Your task to perform on an android device: open app "AliExpress" Image 0: 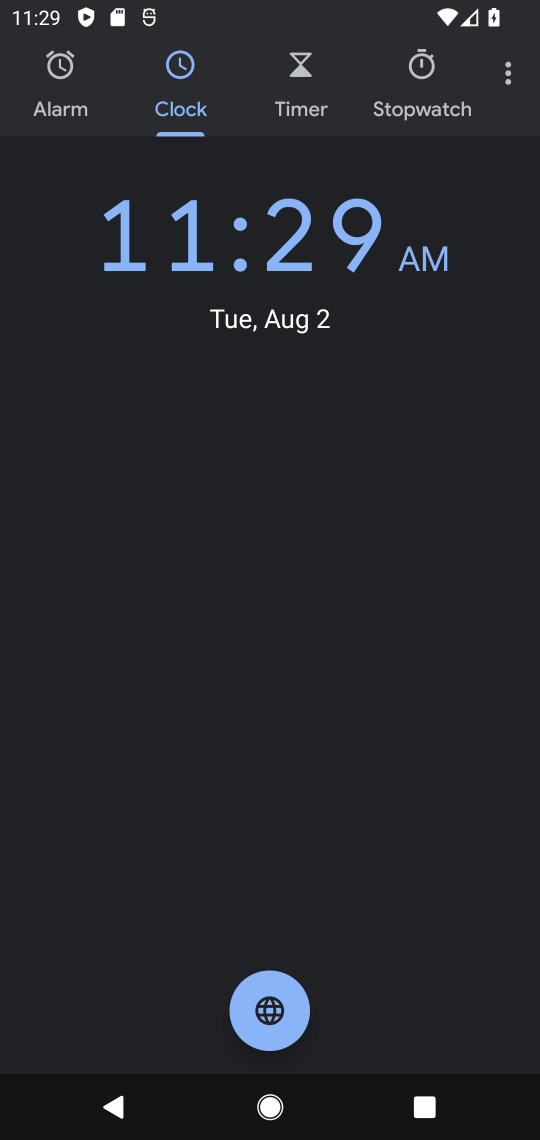
Step 0: press home button
Your task to perform on an android device: open app "AliExpress" Image 1: 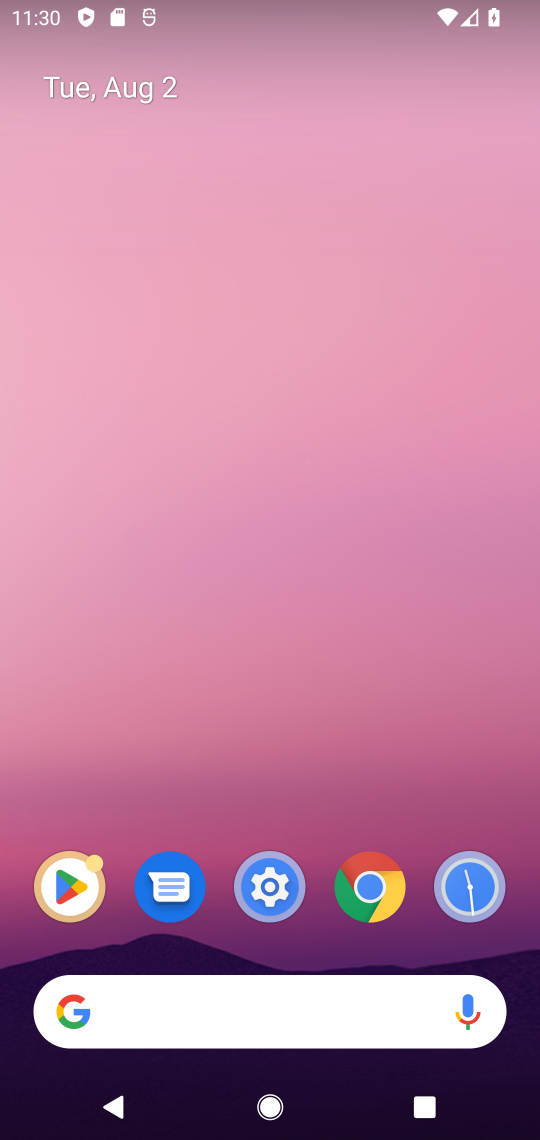
Step 1: click (78, 908)
Your task to perform on an android device: open app "AliExpress" Image 2: 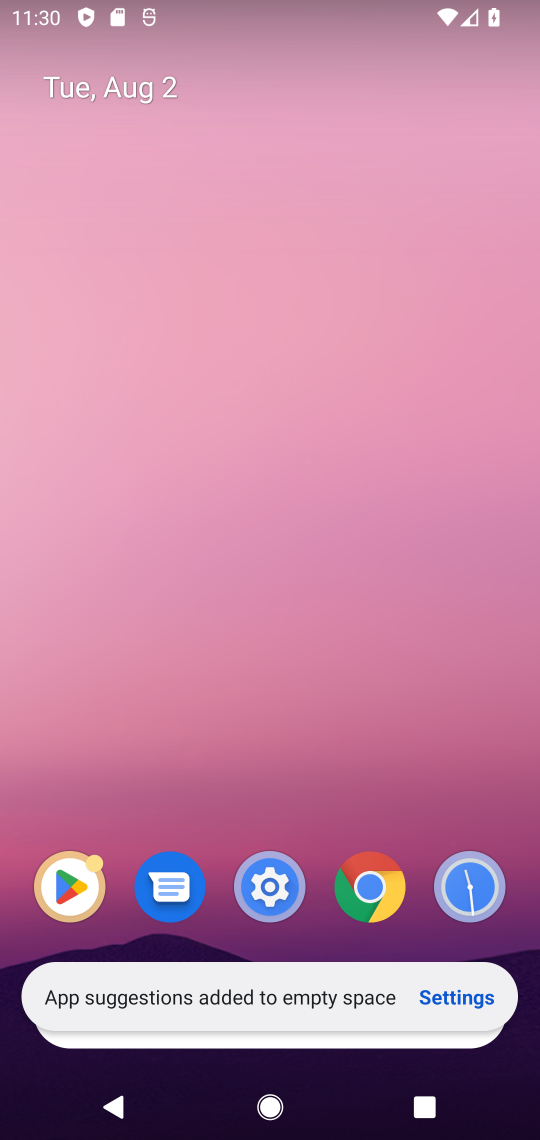
Step 2: click (78, 908)
Your task to perform on an android device: open app "AliExpress" Image 3: 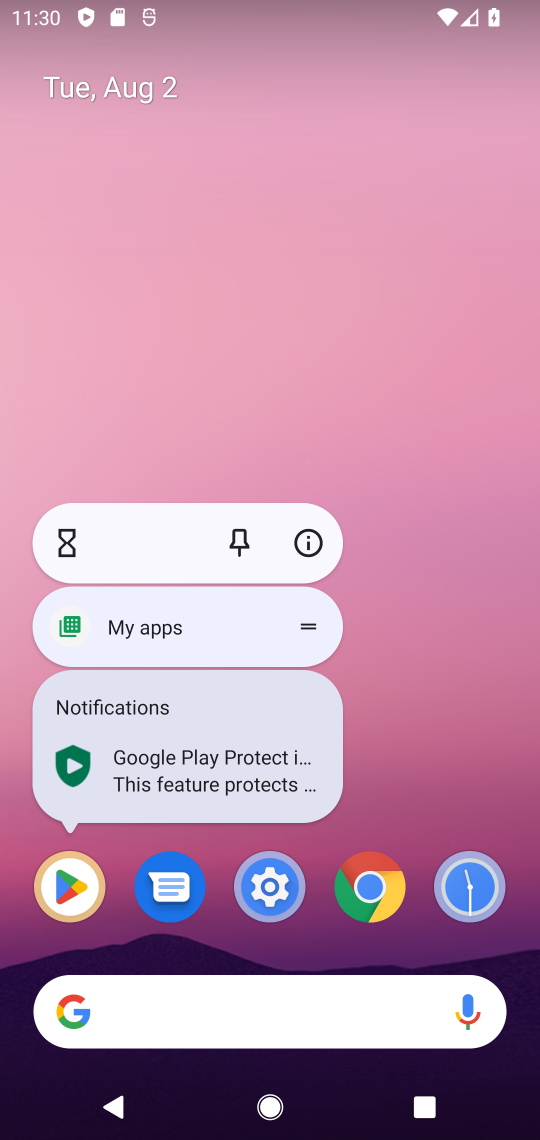
Step 3: click (55, 887)
Your task to perform on an android device: open app "AliExpress" Image 4: 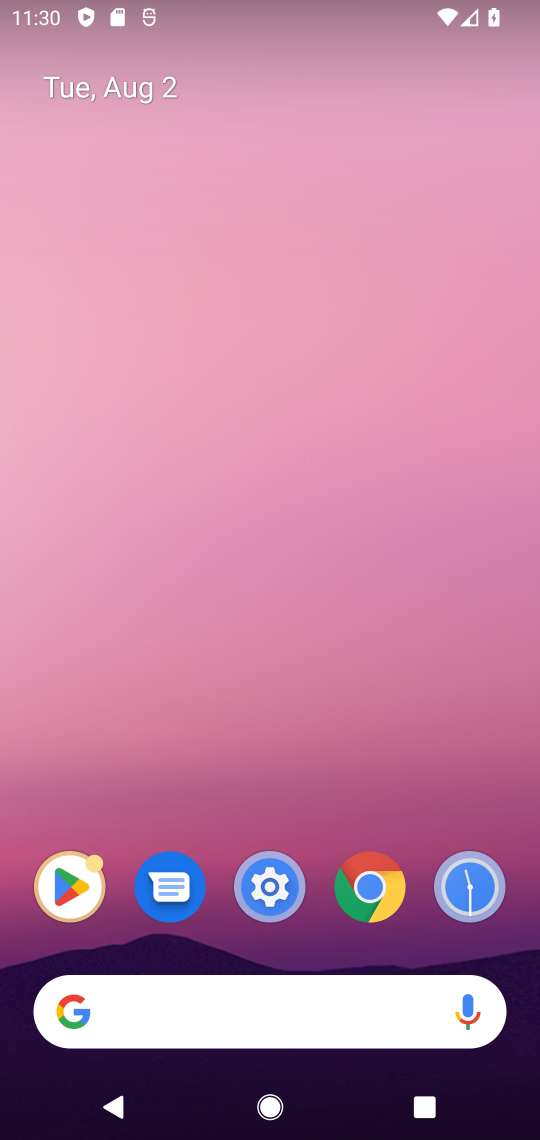
Step 4: click (55, 865)
Your task to perform on an android device: open app "AliExpress" Image 5: 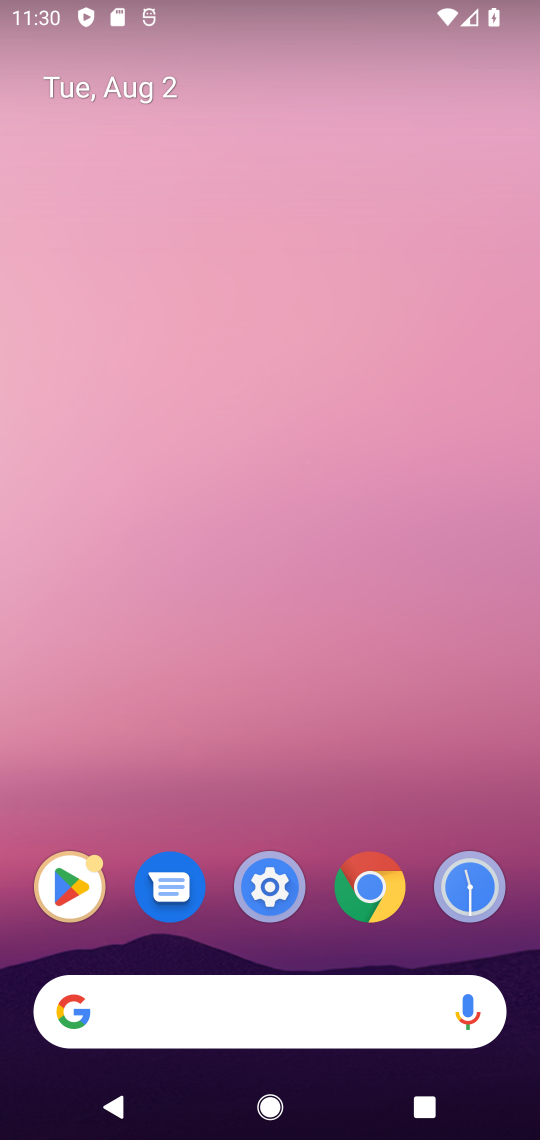
Step 5: click (55, 912)
Your task to perform on an android device: open app "AliExpress" Image 6: 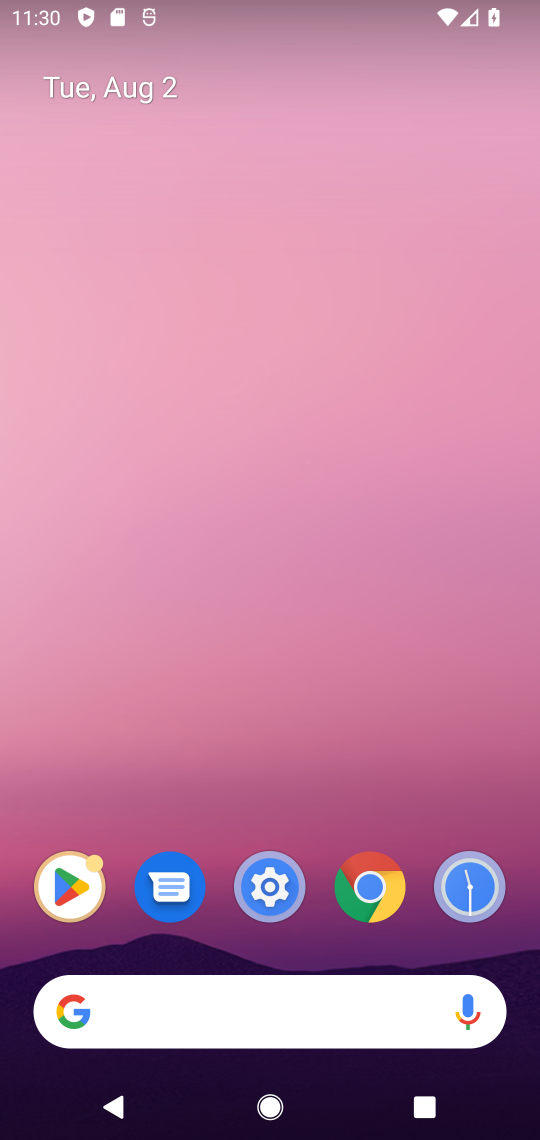
Step 6: click (50, 912)
Your task to perform on an android device: open app "AliExpress" Image 7: 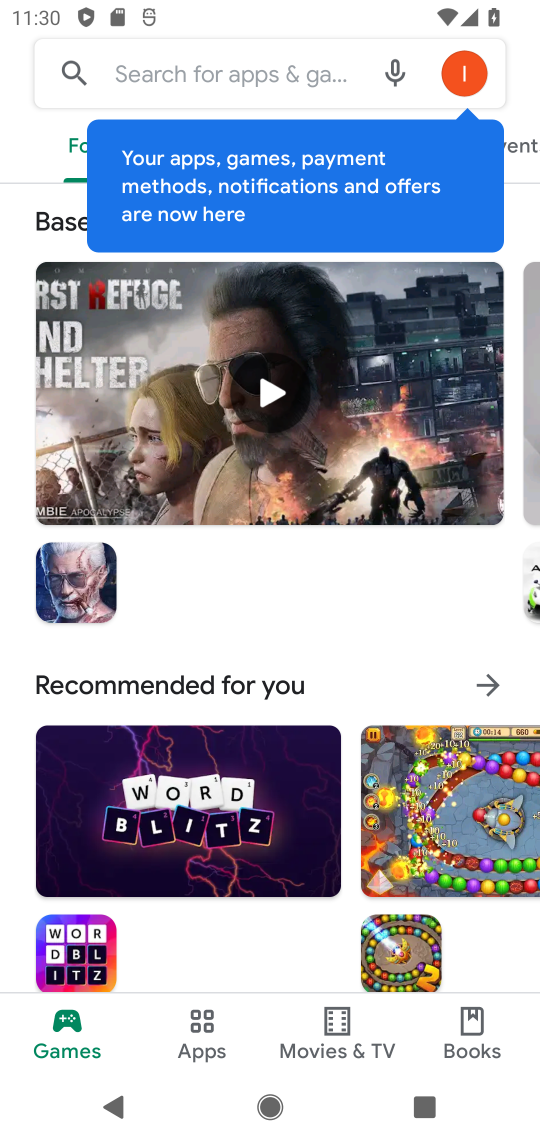
Step 7: click (236, 82)
Your task to perform on an android device: open app "AliExpress" Image 8: 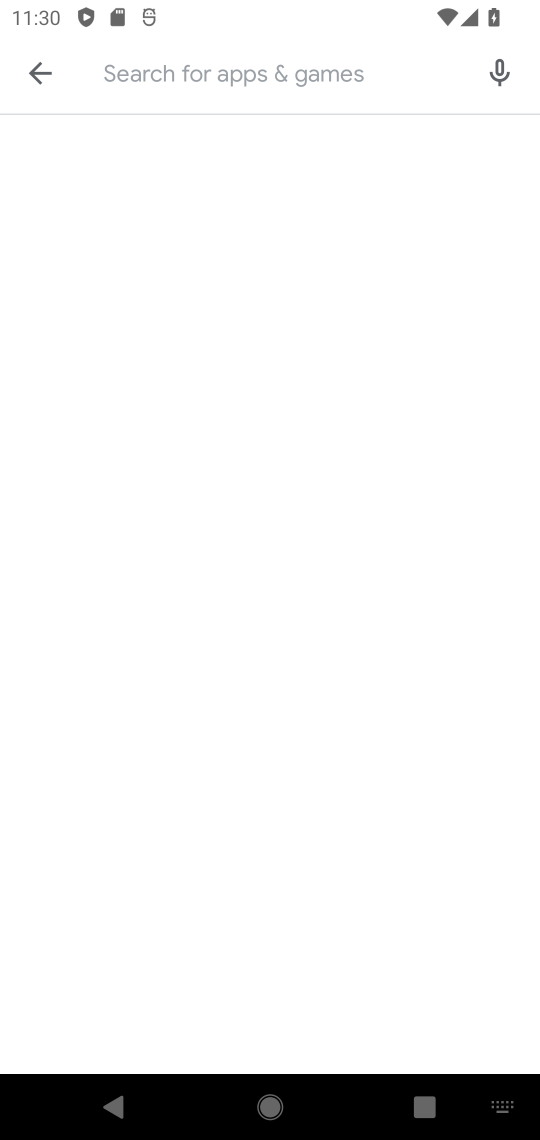
Step 8: type "AliExpress"
Your task to perform on an android device: open app "AliExpress" Image 9: 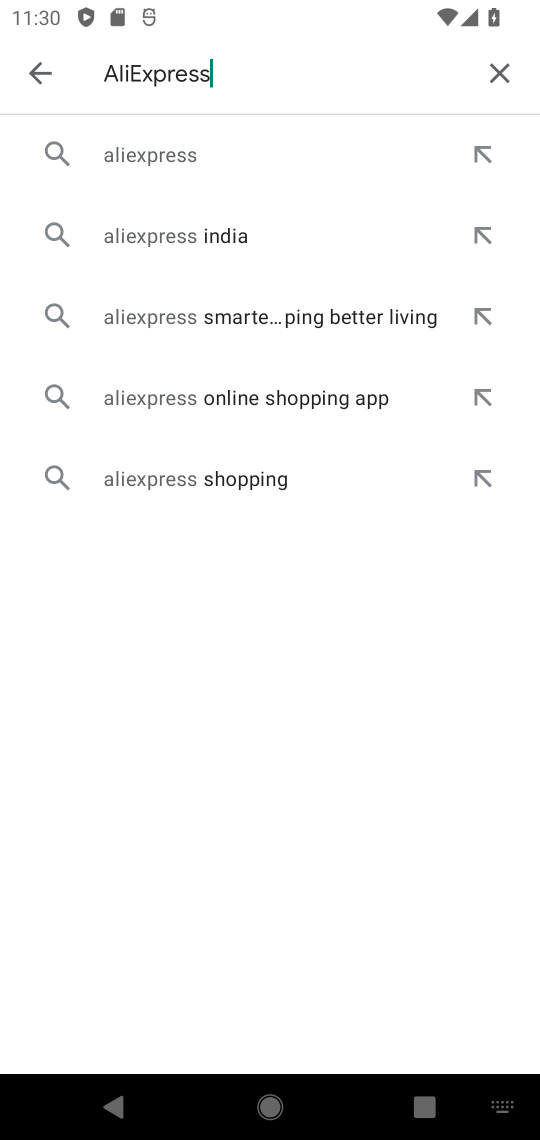
Step 9: click (157, 150)
Your task to perform on an android device: open app "AliExpress" Image 10: 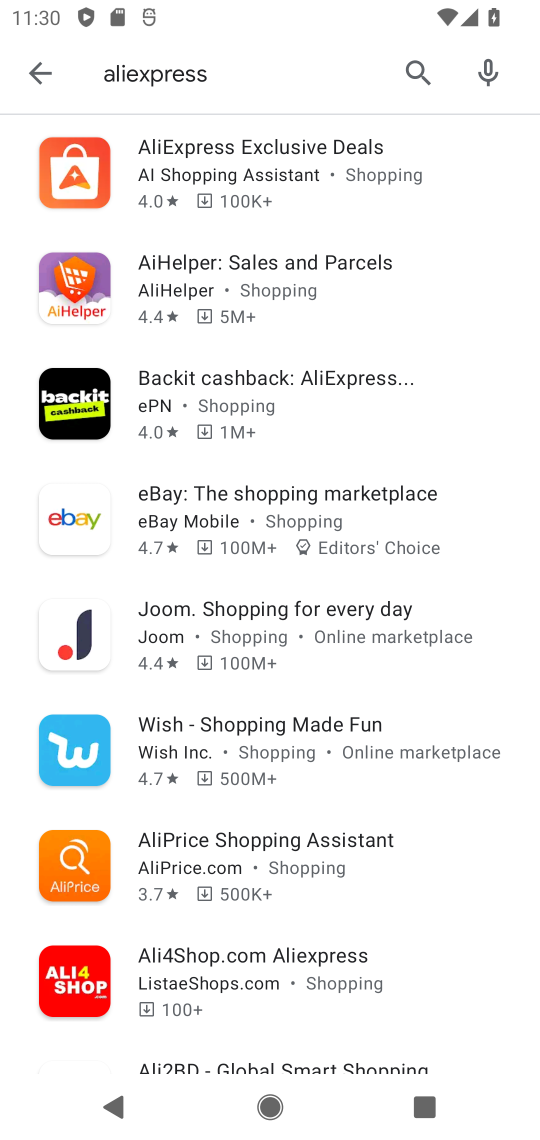
Step 10: task complete